Your task to perform on an android device: open chrome and create a bookmark for the current page Image 0: 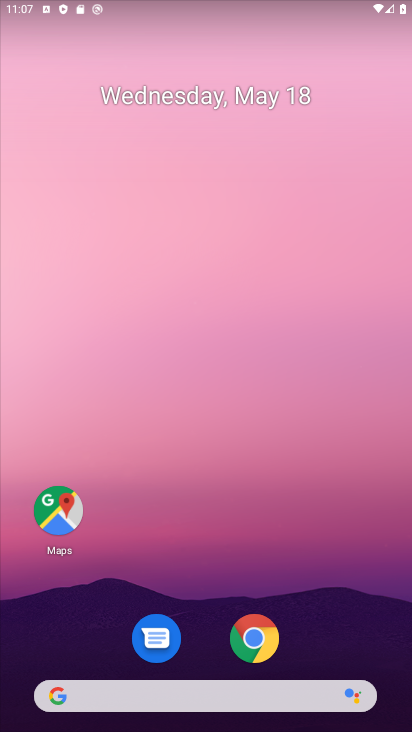
Step 0: drag from (311, 643) to (231, 45)
Your task to perform on an android device: open chrome and create a bookmark for the current page Image 1: 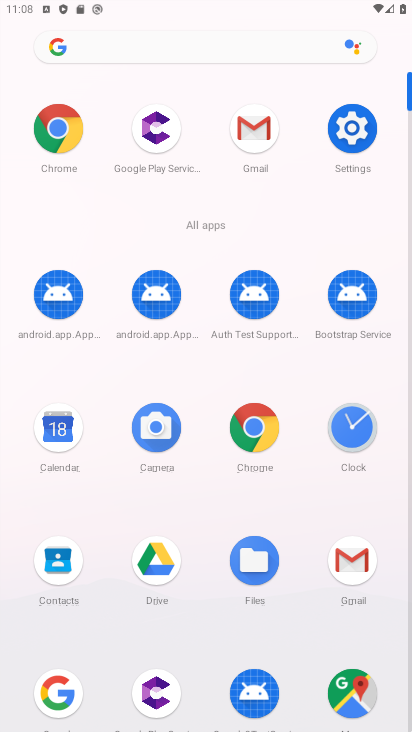
Step 1: click (52, 147)
Your task to perform on an android device: open chrome and create a bookmark for the current page Image 2: 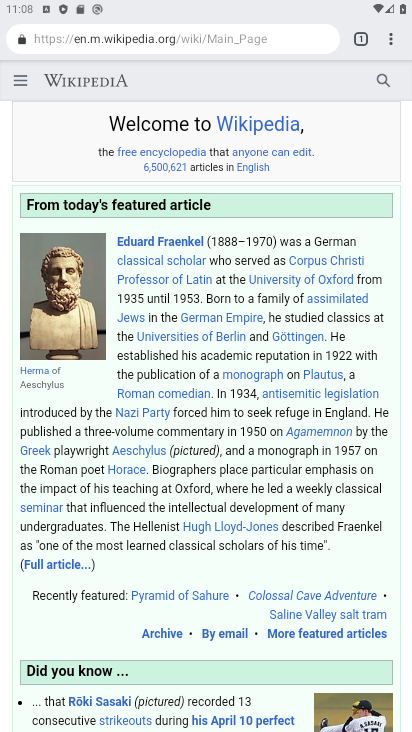
Step 2: click (397, 37)
Your task to perform on an android device: open chrome and create a bookmark for the current page Image 3: 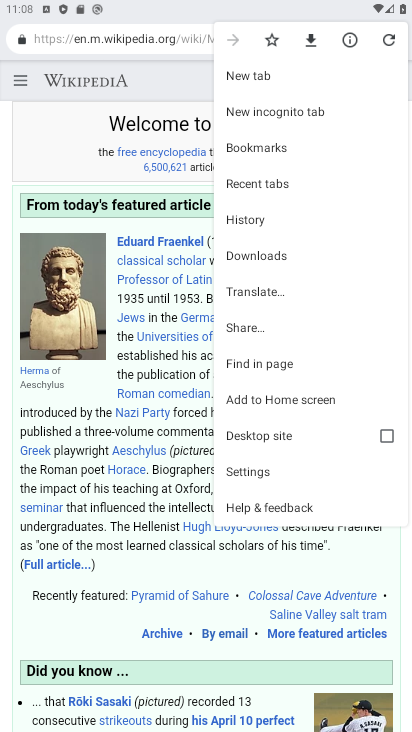
Step 3: click (271, 40)
Your task to perform on an android device: open chrome and create a bookmark for the current page Image 4: 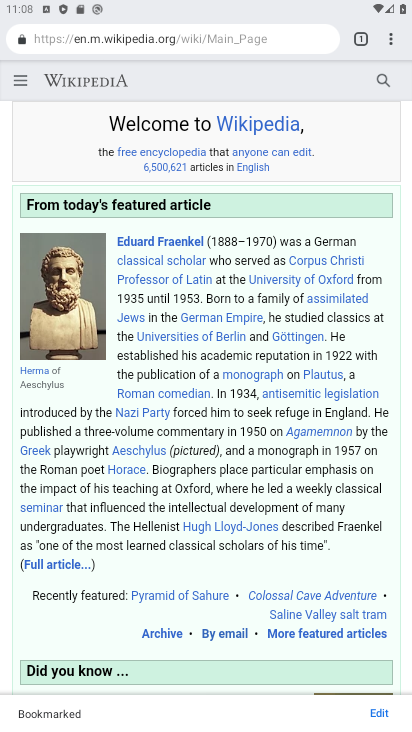
Step 4: task complete